Your task to perform on an android device: turn pop-ups on in chrome Image 0: 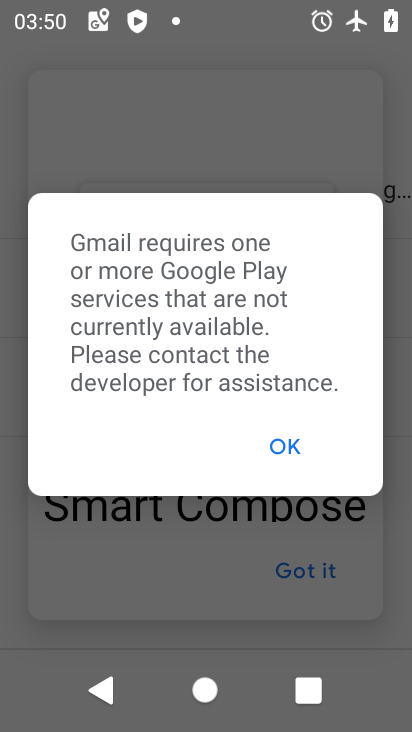
Step 0: press home button
Your task to perform on an android device: turn pop-ups on in chrome Image 1: 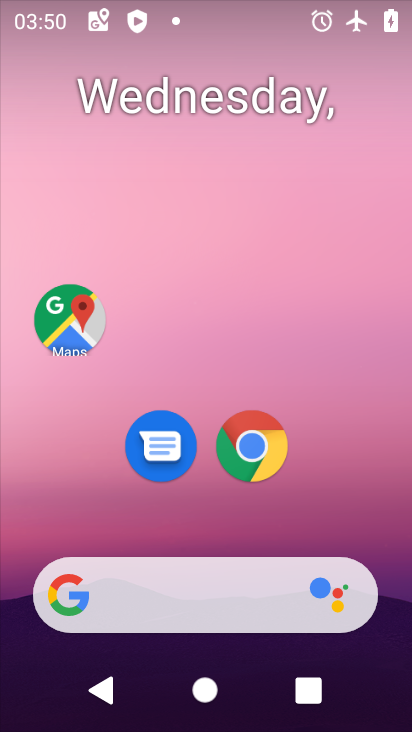
Step 1: click (274, 448)
Your task to perform on an android device: turn pop-ups on in chrome Image 2: 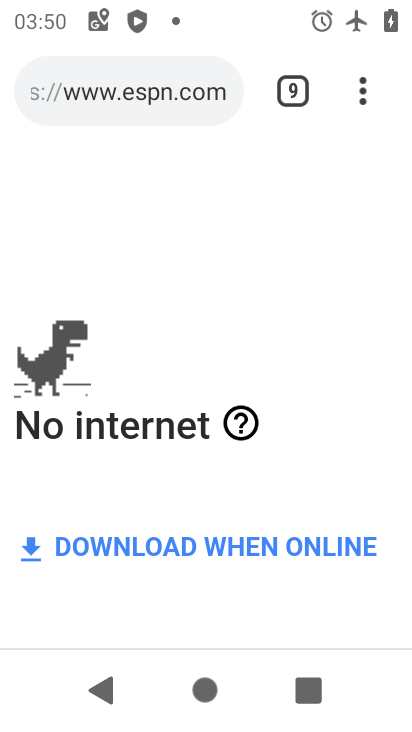
Step 2: click (368, 97)
Your task to perform on an android device: turn pop-ups on in chrome Image 3: 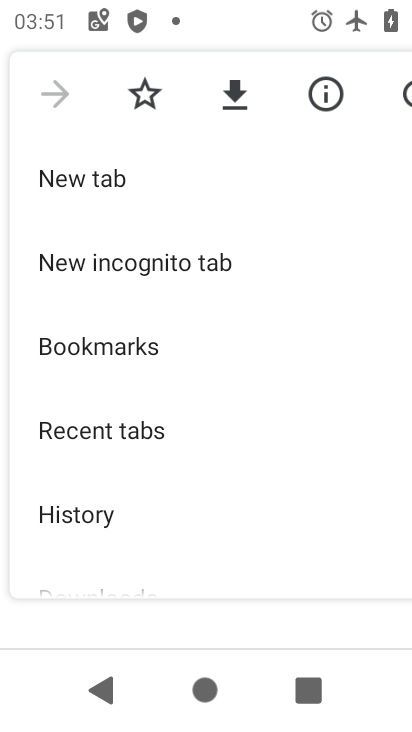
Step 3: drag from (249, 507) to (193, 237)
Your task to perform on an android device: turn pop-ups on in chrome Image 4: 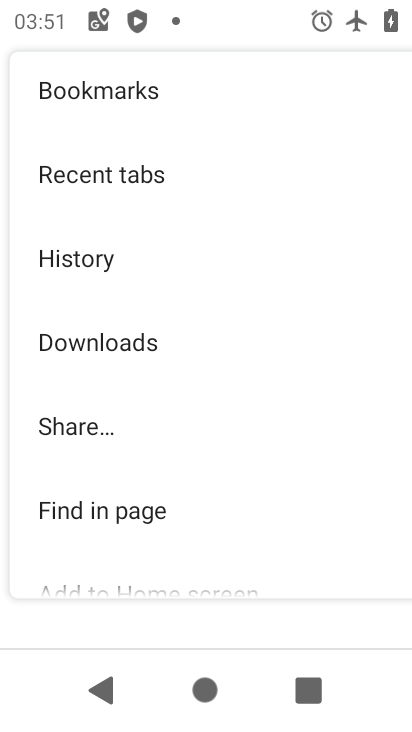
Step 4: drag from (191, 515) to (193, 256)
Your task to perform on an android device: turn pop-ups on in chrome Image 5: 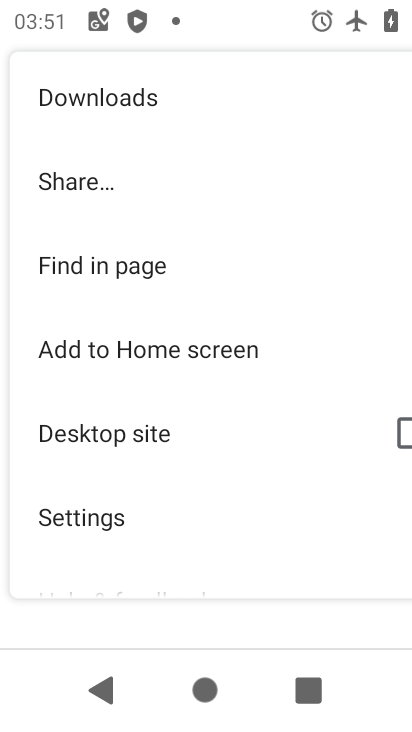
Step 5: drag from (183, 510) to (188, 306)
Your task to perform on an android device: turn pop-ups on in chrome Image 6: 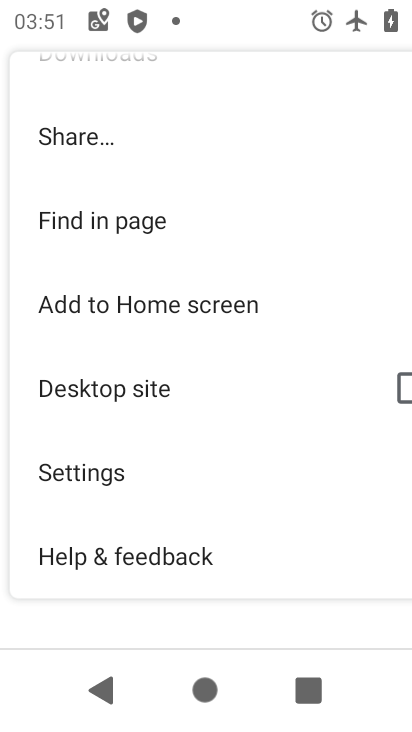
Step 6: click (148, 458)
Your task to perform on an android device: turn pop-ups on in chrome Image 7: 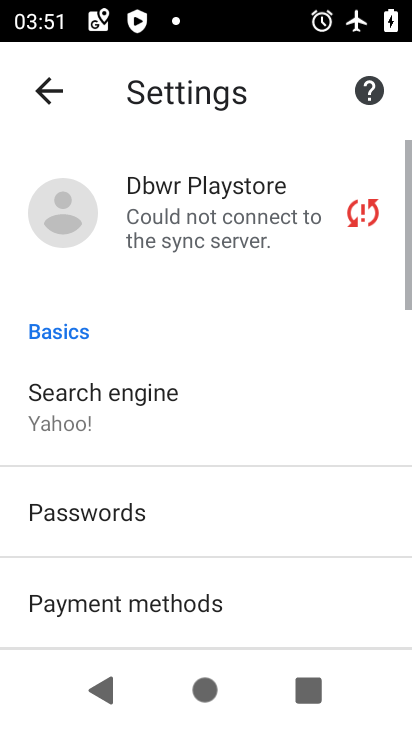
Step 7: drag from (198, 564) to (203, 354)
Your task to perform on an android device: turn pop-ups on in chrome Image 8: 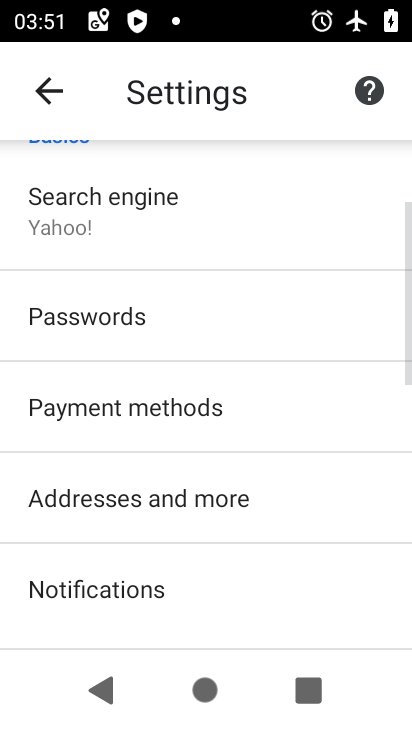
Step 8: drag from (229, 548) to (229, 346)
Your task to perform on an android device: turn pop-ups on in chrome Image 9: 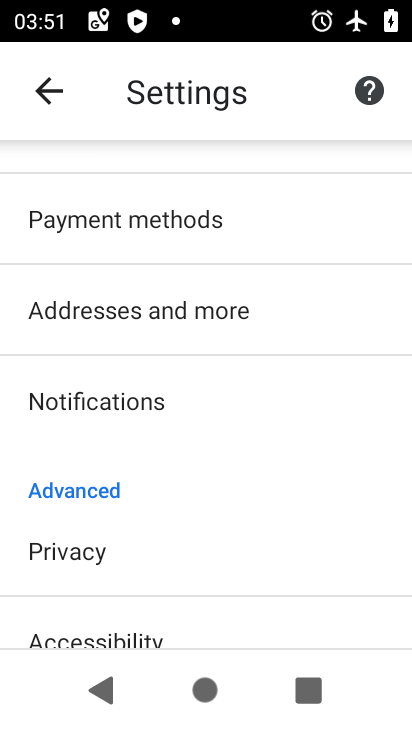
Step 9: drag from (230, 560) to (233, 284)
Your task to perform on an android device: turn pop-ups on in chrome Image 10: 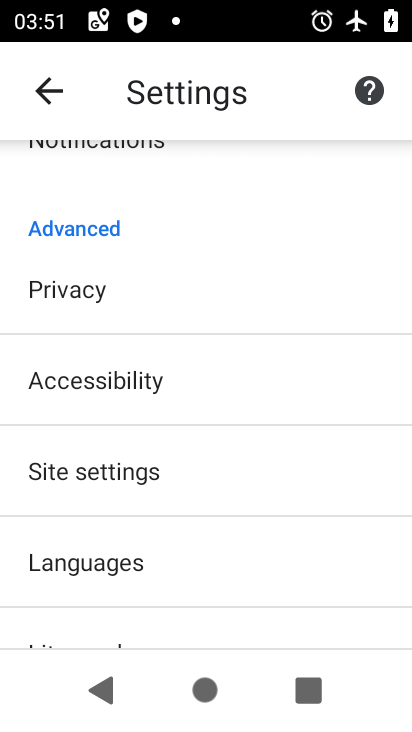
Step 10: click (229, 473)
Your task to perform on an android device: turn pop-ups on in chrome Image 11: 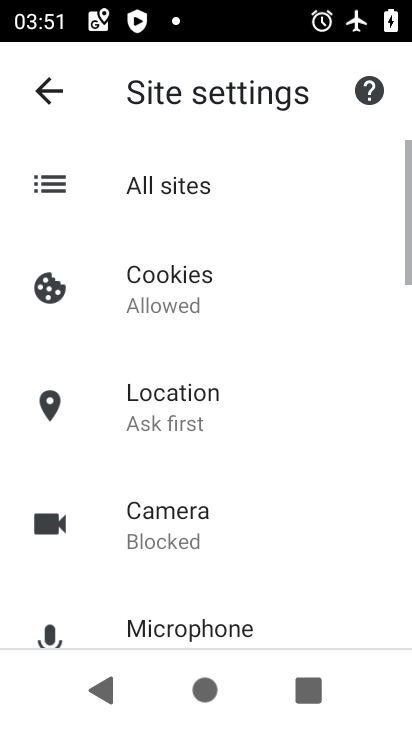
Step 11: drag from (243, 402) to (228, 218)
Your task to perform on an android device: turn pop-ups on in chrome Image 12: 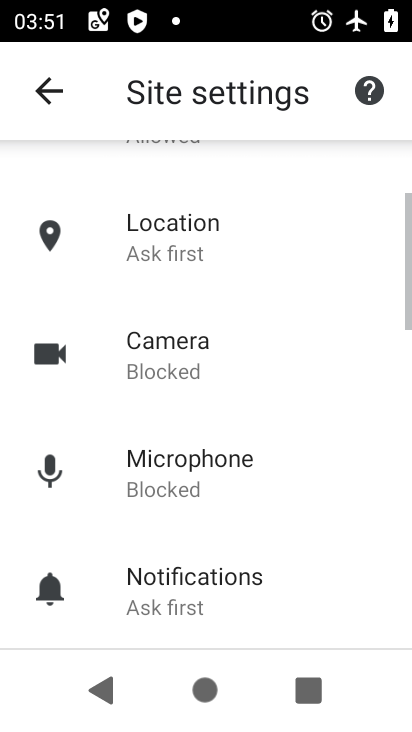
Step 12: click (247, 281)
Your task to perform on an android device: turn pop-ups on in chrome Image 13: 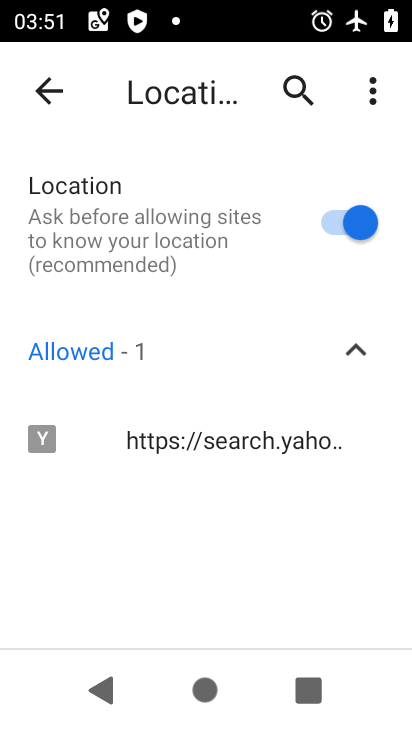
Step 13: drag from (244, 505) to (215, 323)
Your task to perform on an android device: turn pop-ups on in chrome Image 14: 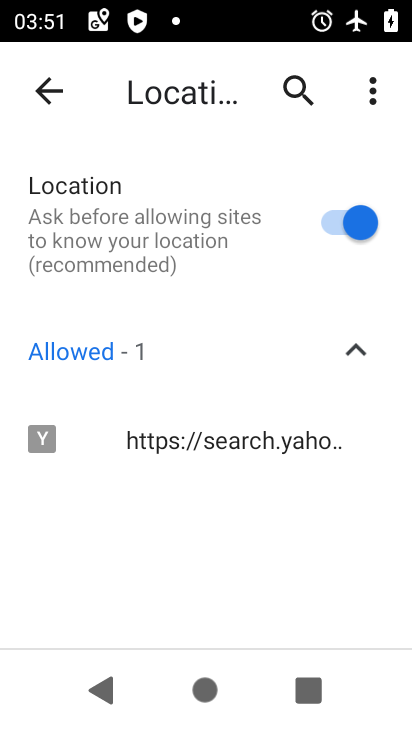
Step 14: click (42, 97)
Your task to perform on an android device: turn pop-ups on in chrome Image 15: 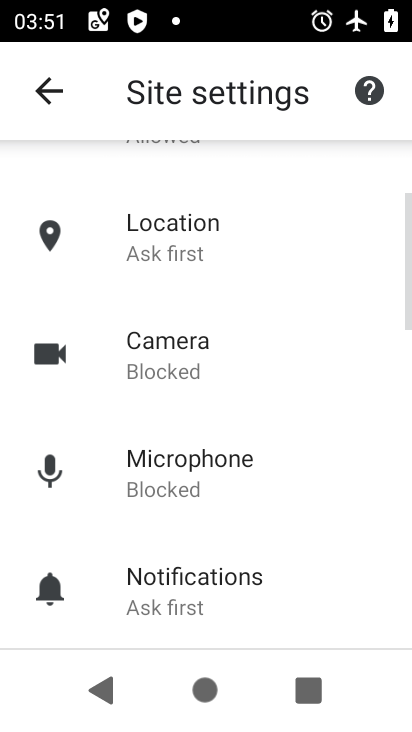
Step 15: drag from (239, 554) to (204, 311)
Your task to perform on an android device: turn pop-ups on in chrome Image 16: 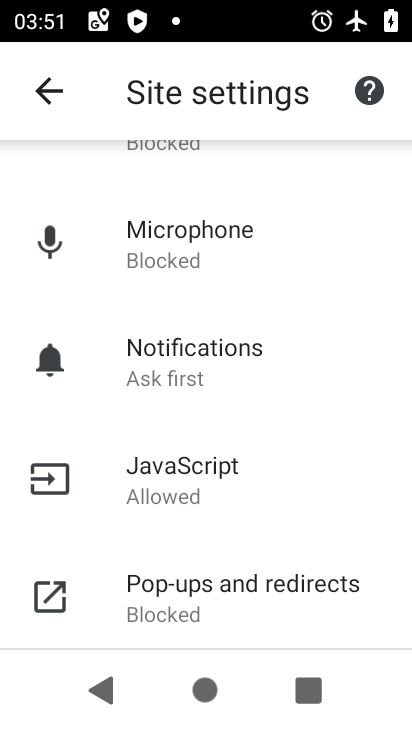
Step 16: click (239, 580)
Your task to perform on an android device: turn pop-ups on in chrome Image 17: 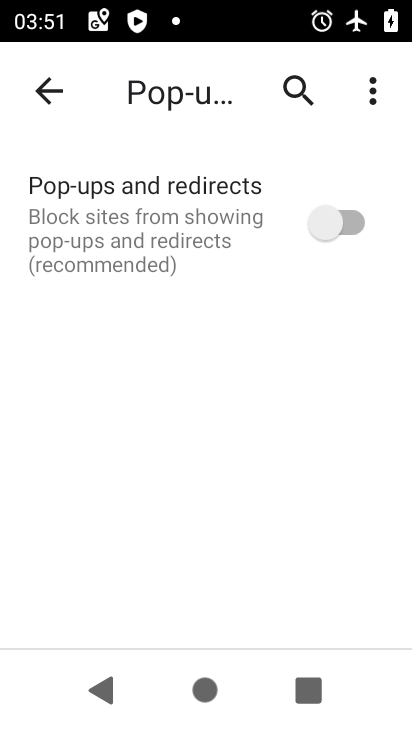
Step 17: click (352, 225)
Your task to perform on an android device: turn pop-ups on in chrome Image 18: 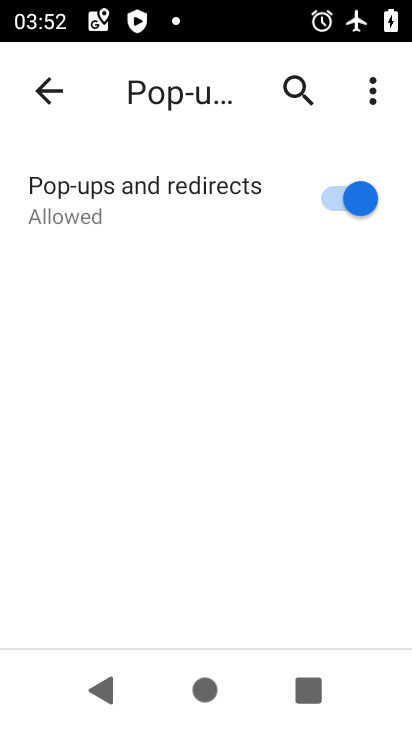
Step 18: task complete